Your task to perform on an android device: turn off data saver in the chrome app Image 0: 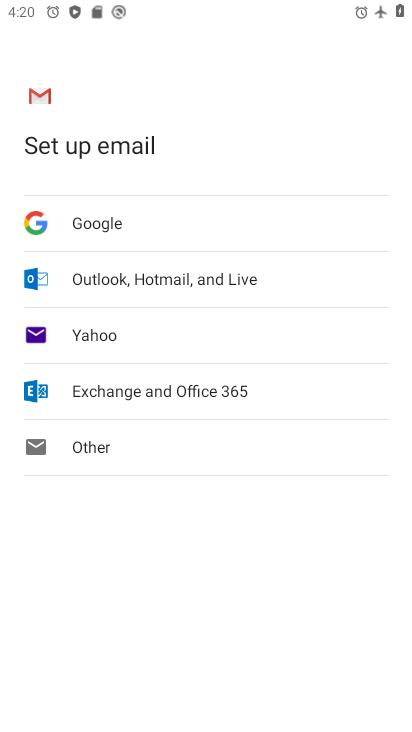
Step 0: press back button
Your task to perform on an android device: turn off data saver in the chrome app Image 1: 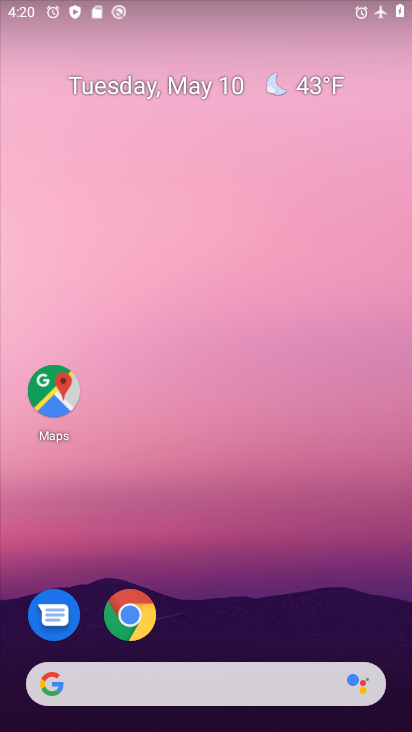
Step 1: drag from (259, 538) to (225, 9)
Your task to perform on an android device: turn off data saver in the chrome app Image 2: 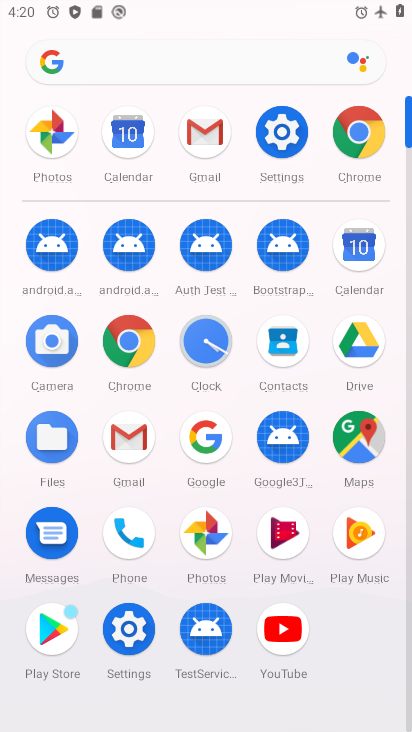
Step 2: drag from (2, 556) to (4, 322)
Your task to perform on an android device: turn off data saver in the chrome app Image 3: 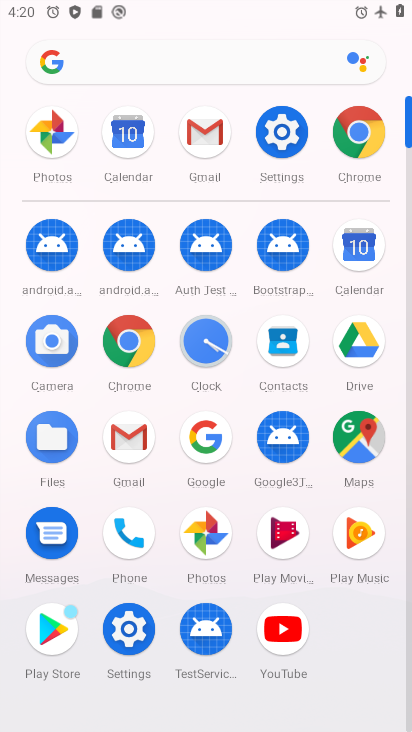
Step 3: click (129, 331)
Your task to perform on an android device: turn off data saver in the chrome app Image 4: 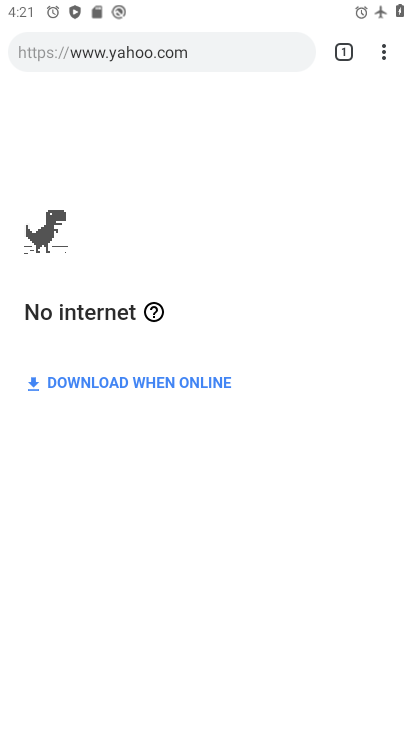
Step 4: drag from (379, 50) to (206, 626)
Your task to perform on an android device: turn off data saver in the chrome app Image 5: 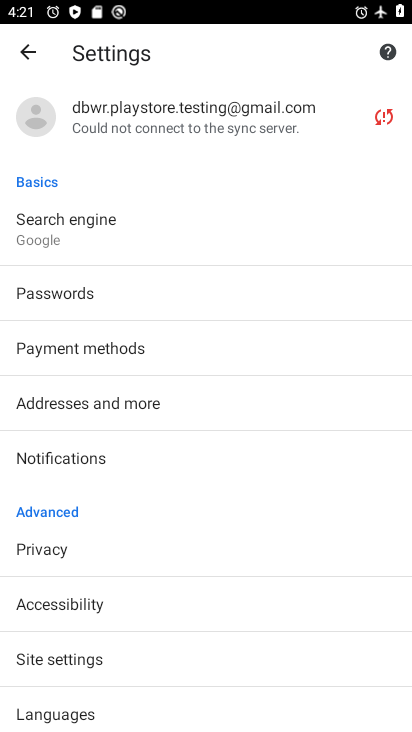
Step 5: drag from (195, 609) to (233, 183)
Your task to perform on an android device: turn off data saver in the chrome app Image 6: 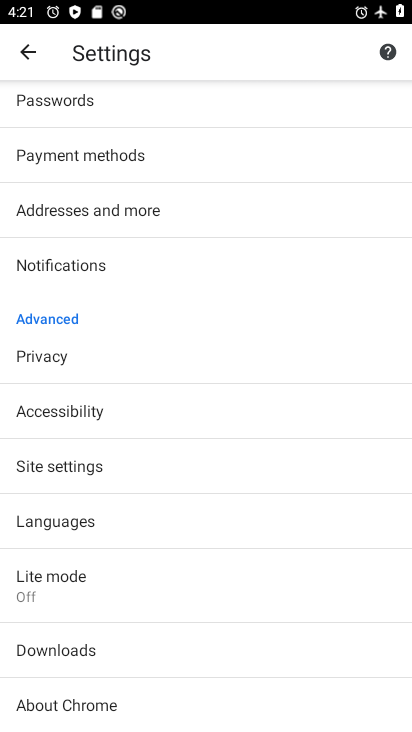
Step 6: click (91, 592)
Your task to perform on an android device: turn off data saver in the chrome app Image 7: 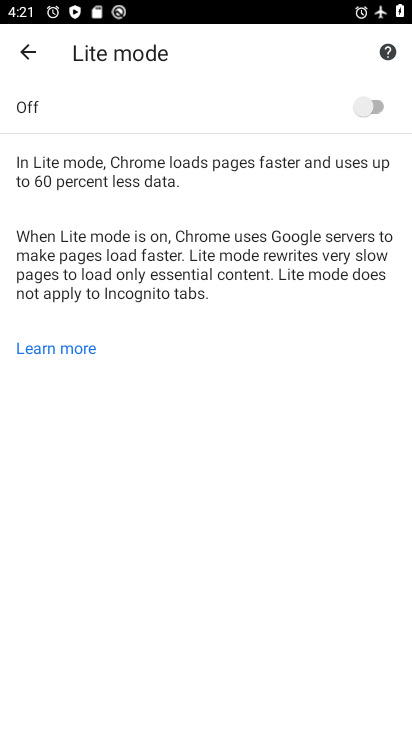
Step 7: task complete